Your task to perform on an android device: Go to Yahoo.com Image 0: 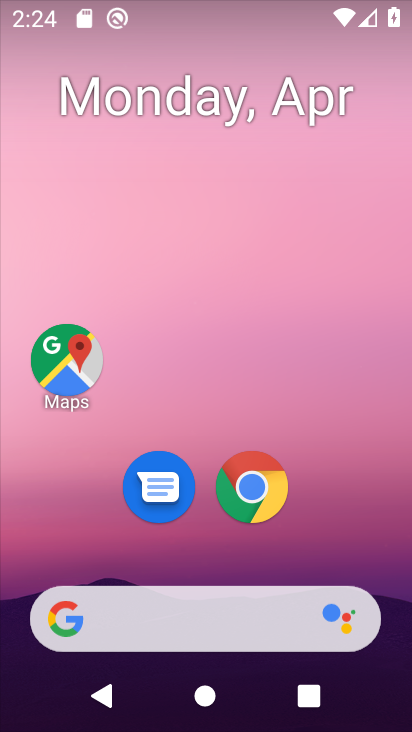
Step 0: click (248, 479)
Your task to perform on an android device: Go to Yahoo.com Image 1: 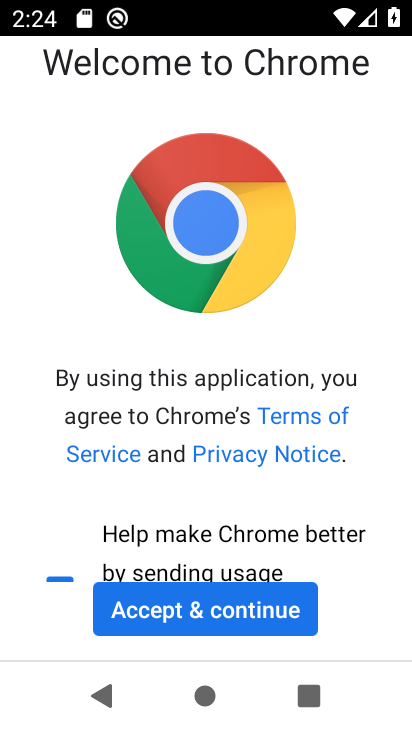
Step 1: click (217, 593)
Your task to perform on an android device: Go to Yahoo.com Image 2: 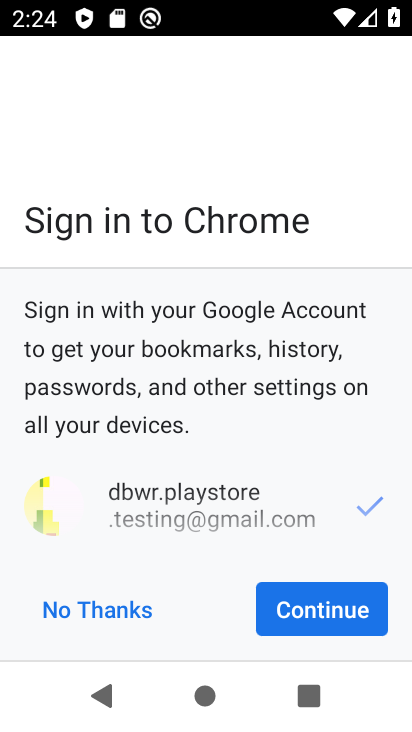
Step 2: click (126, 610)
Your task to perform on an android device: Go to Yahoo.com Image 3: 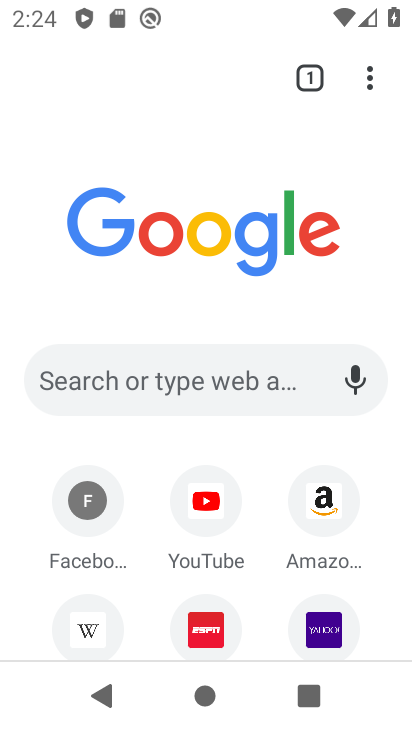
Step 3: click (335, 629)
Your task to perform on an android device: Go to Yahoo.com Image 4: 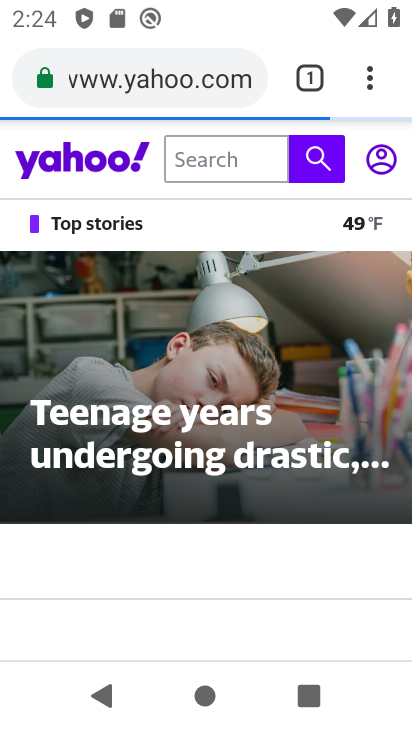
Step 4: task complete